Your task to perform on an android device: change notifications settings Image 0: 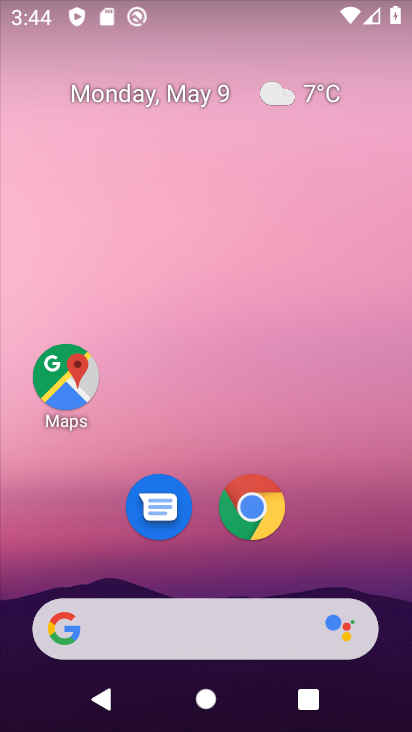
Step 0: drag from (263, 619) to (208, 187)
Your task to perform on an android device: change notifications settings Image 1: 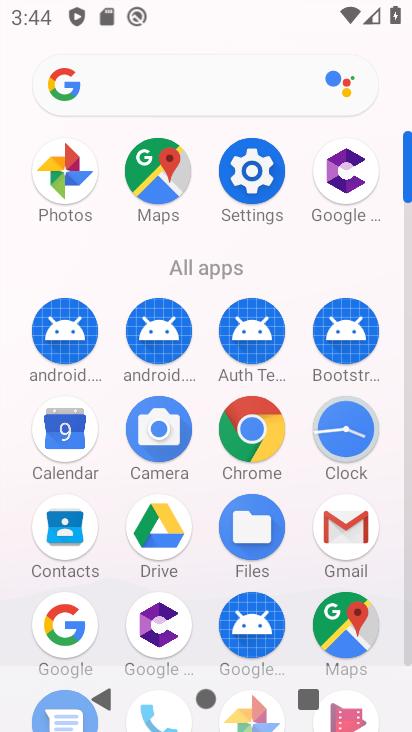
Step 1: click (236, 184)
Your task to perform on an android device: change notifications settings Image 2: 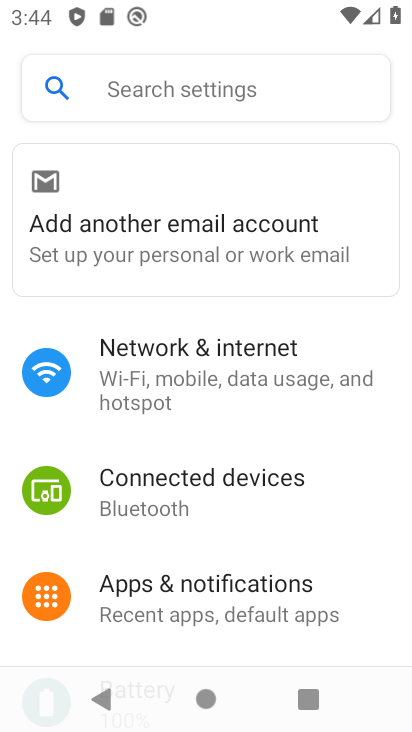
Step 2: click (175, 102)
Your task to perform on an android device: change notifications settings Image 3: 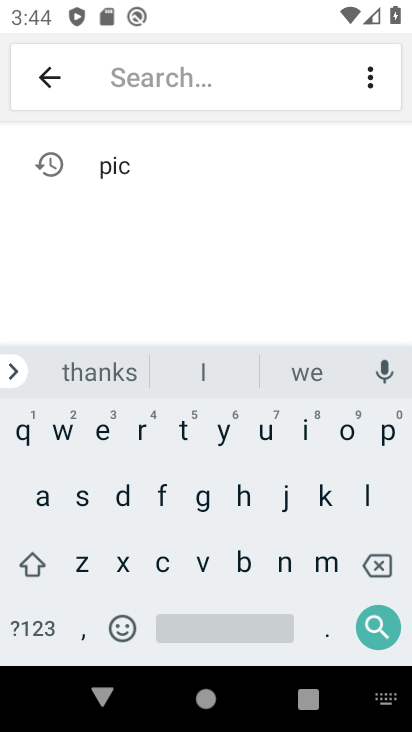
Step 3: click (278, 570)
Your task to perform on an android device: change notifications settings Image 4: 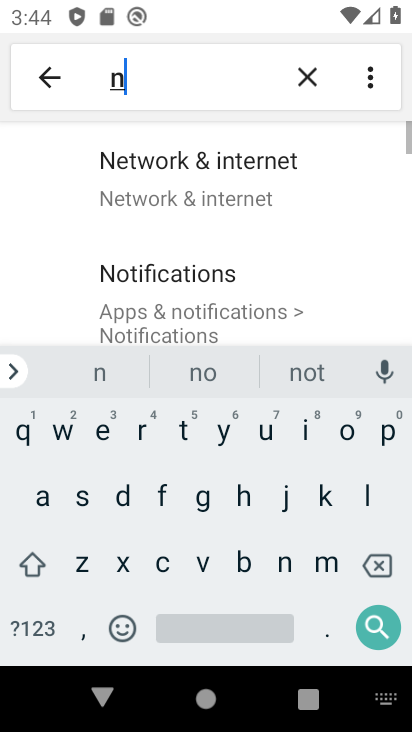
Step 4: click (347, 459)
Your task to perform on an android device: change notifications settings Image 5: 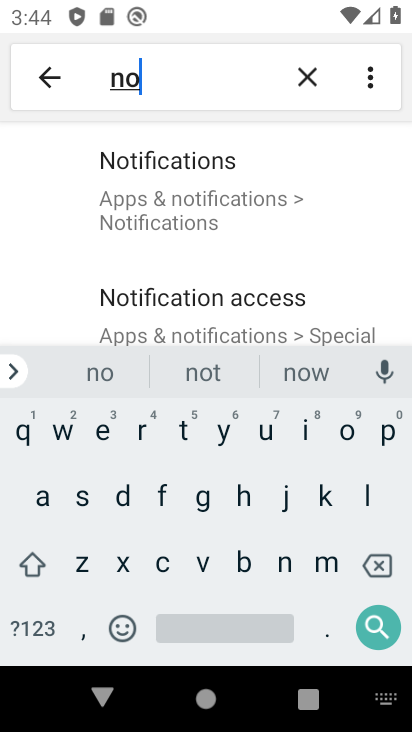
Step 5: click (195, 196)
Your task to perform on an android device: change notifications settings Image 6: 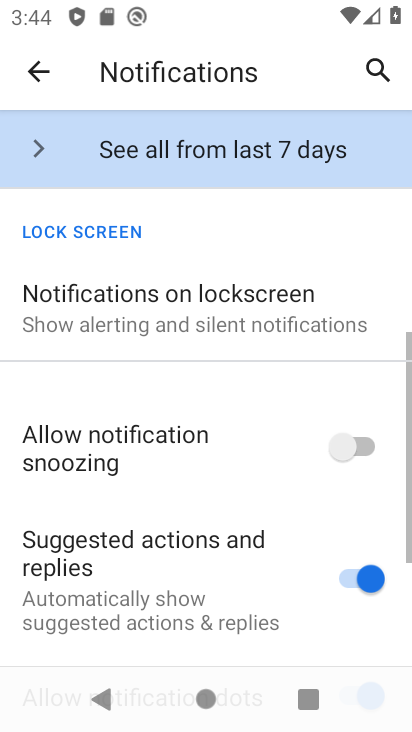
Step 6: click (186, 291)
Your task to perform on an android device: change notifications settings Image 7: 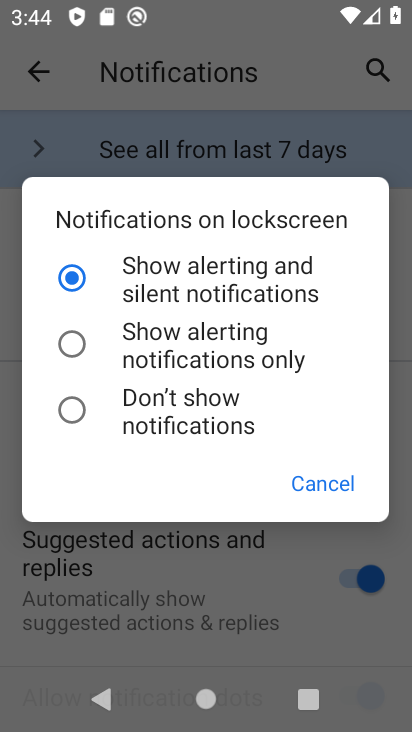
Step 7: click (143, 358)
Your task to perform on an android device: change notifications settings Image 8: 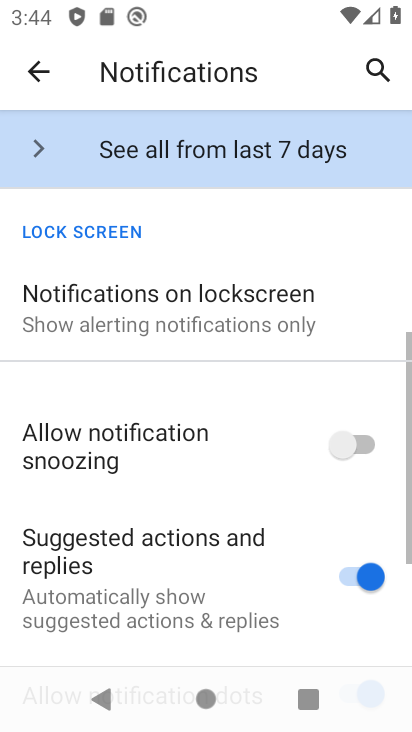
Step 8: task complete